Your task to perform on an android device: see creations saved in the google photos Image 0: 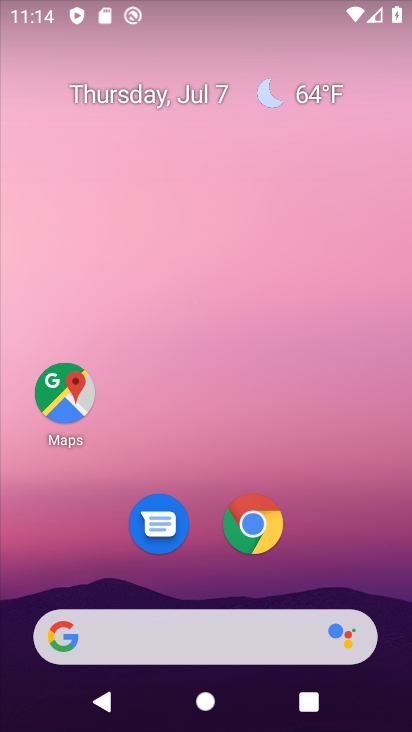
Step 0: drag from (253, 456) to (241, 0)
Your task to perform on an android device: see creations saved in the google photos Image 1: 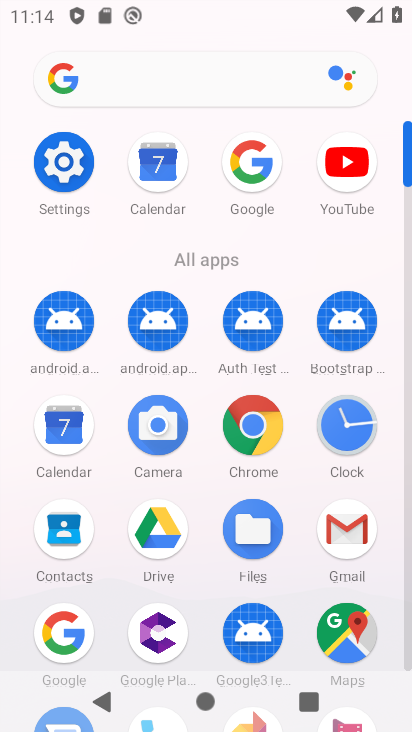
Step 1: drag from (205, 541) to (209, 229)
Your task to perform on an android device: see creations saved in the google photos Image 2: 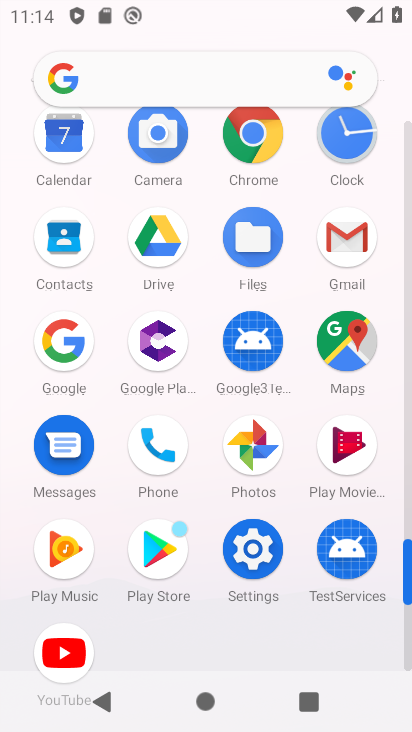
Step 2: click (242, 434)
Your task to perform on an android device: see creations saved in the google photos Image 3: 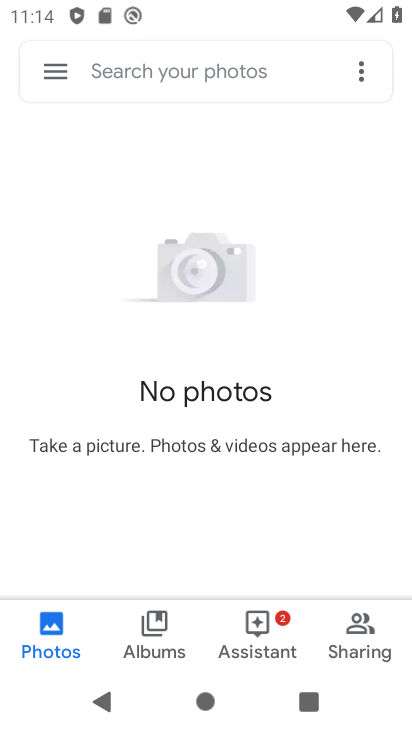
Step 3: click (223, 65)
Your task to perform on an android device: see creations saved in the google photos Image 4: 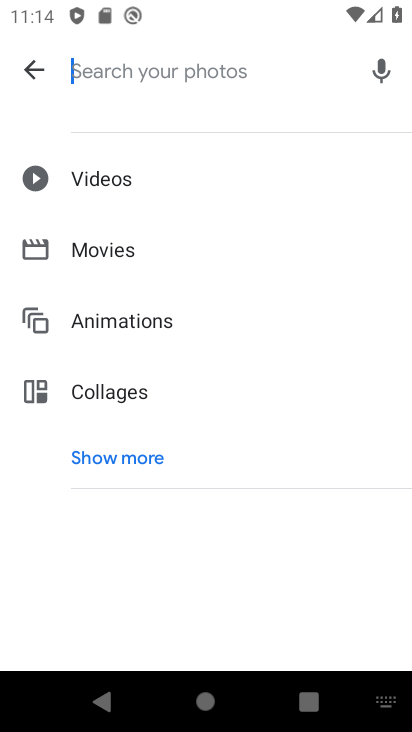
Step 4: click (129, 455)
Your task to perform on an android device: see creations saved in the google photos Image 5: 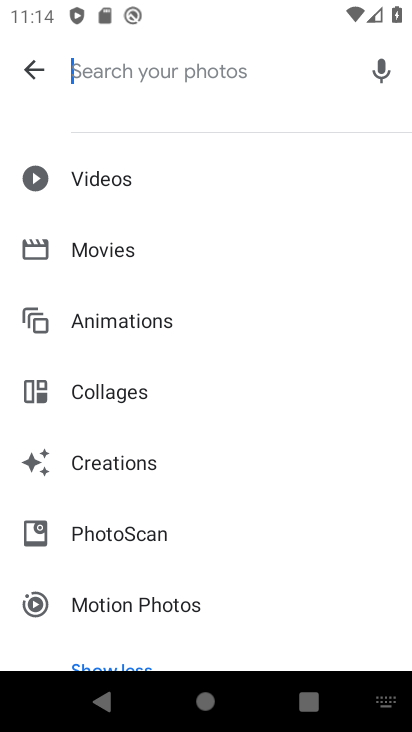
Step 5: click (128, 464)
Your task to perform on an android device: see creations saved in the google photos Image 6: 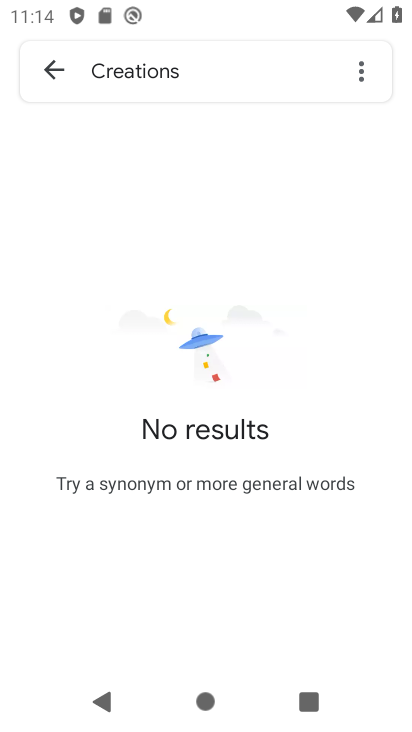
Step 6: task complete